Your task to perform on an android device: turn on location history Image 0: 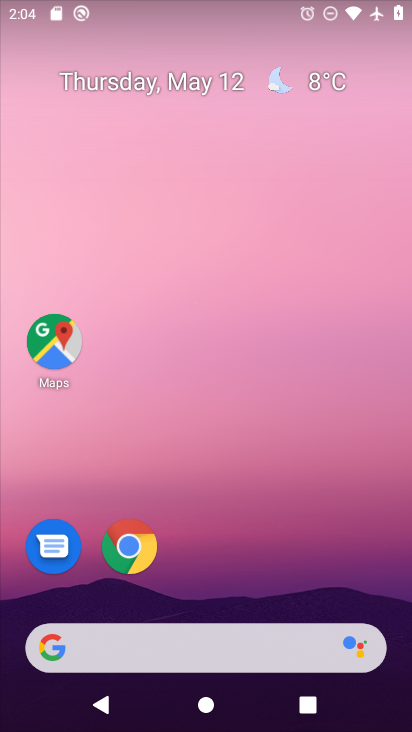
Step 0: drag from (147, 650) to (266, 92)
Your task to perform on an android device: turn on location history Image 1: 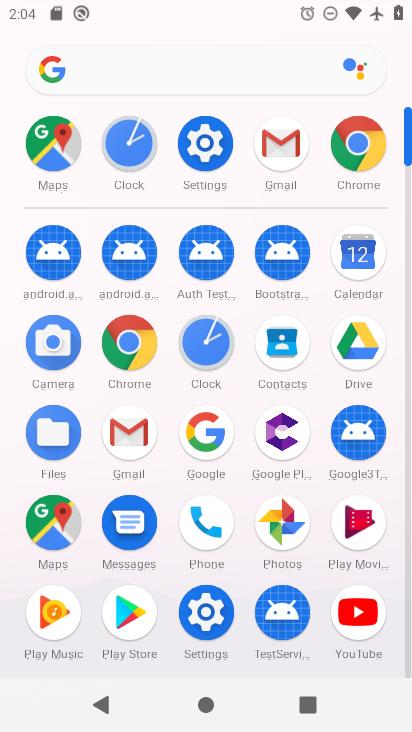
Step 1: click (60, 151)
Your task to perform on an android device: turn on location history Image 2: 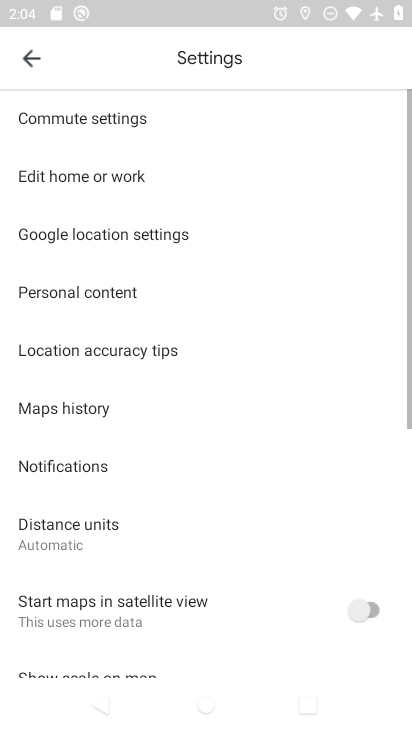
Step 2: click (31, 62)
Your task to perform on an android device: turn on location history Image 3: 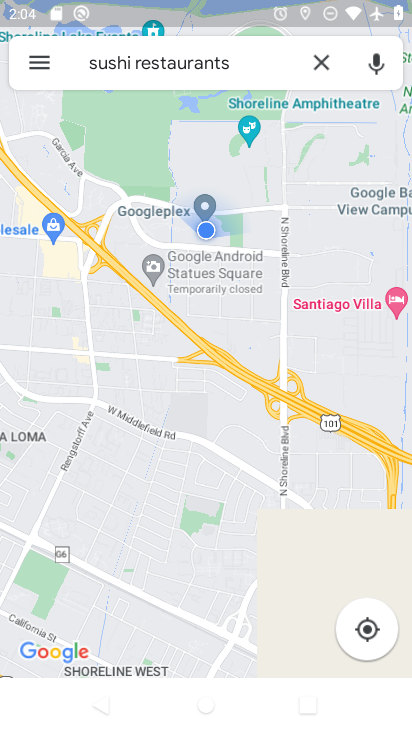
Step 3: click (31, 61)
Your task to perform on an android device: turn on location history Image 4: 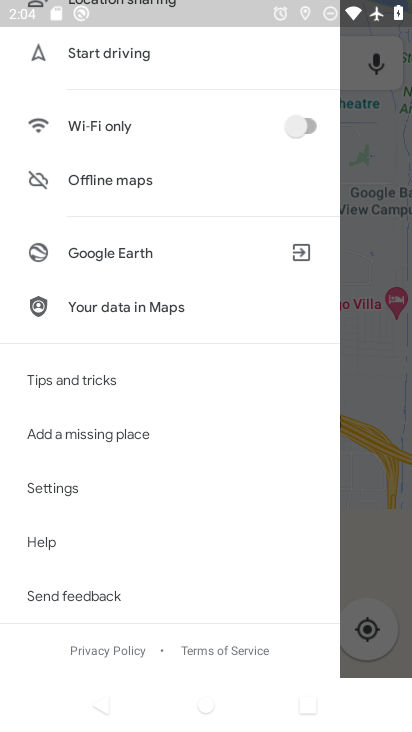
Step 4: drag from (218, 111) to (166, 567)
Your task to perform on an android device: turn on location history Image 5: 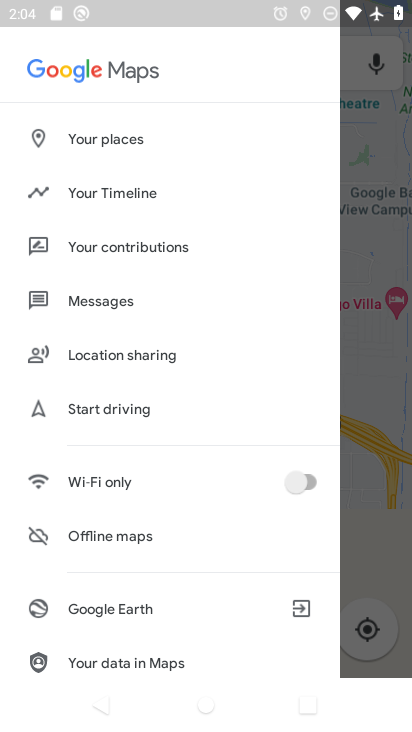
Step 5: click (108, 190)
Your task to perform on an android device: turn on location history Image 6: 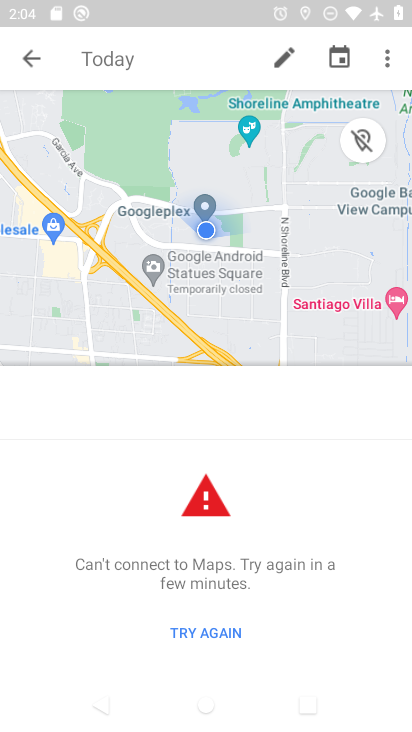
Step 6: click (389, 60)
Your task to perform on an android device: turn on location history Image 7: 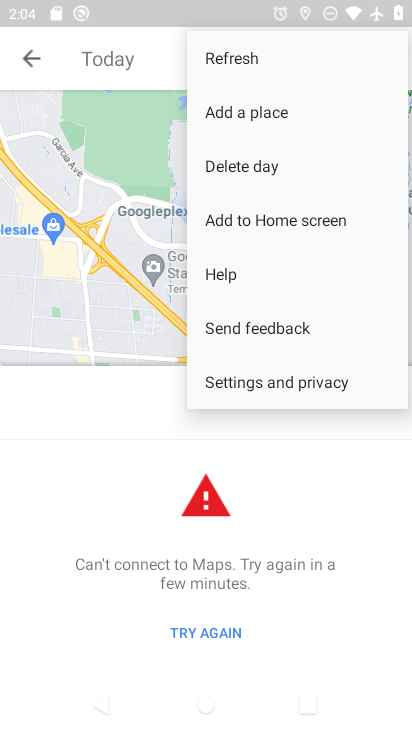
Step 7: click (297, 377)
Your task to perform on an android device: turn on location history Image 8: 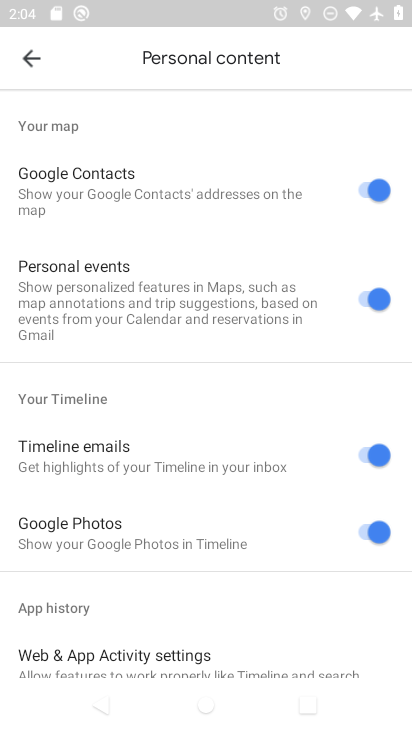
Step 8: drag from (174, 617) to (227, 395)
Your task to perform on an android device: turn on location history Image 9: 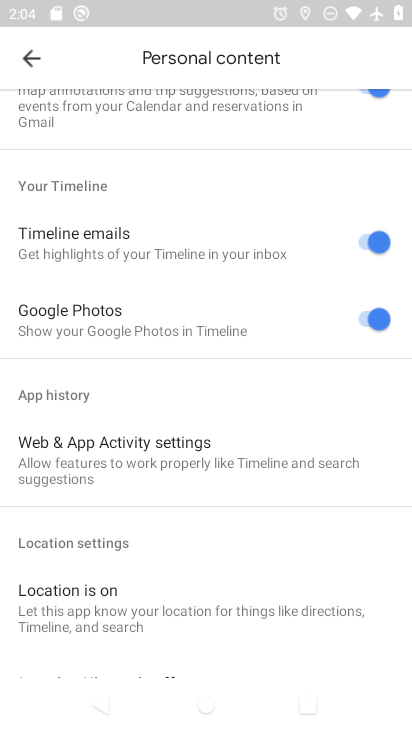
Step 9: drag from (209, 573) to (259, 418)
Your task to perform on an android device: turn on location history Image 10: 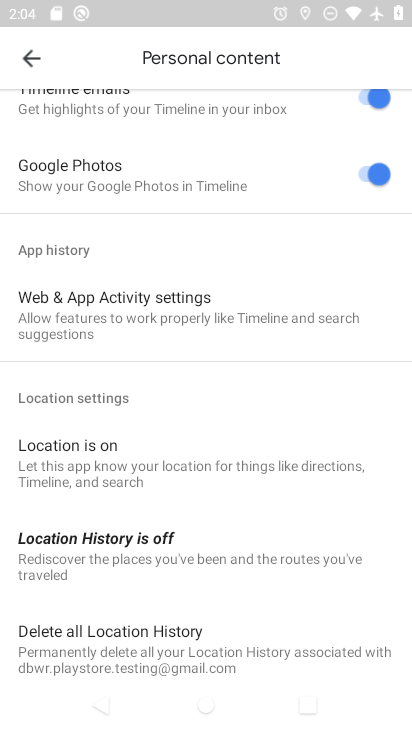
Step 10: click (135, 542)
Your task to perform on an android device: turn on location history Image 11: 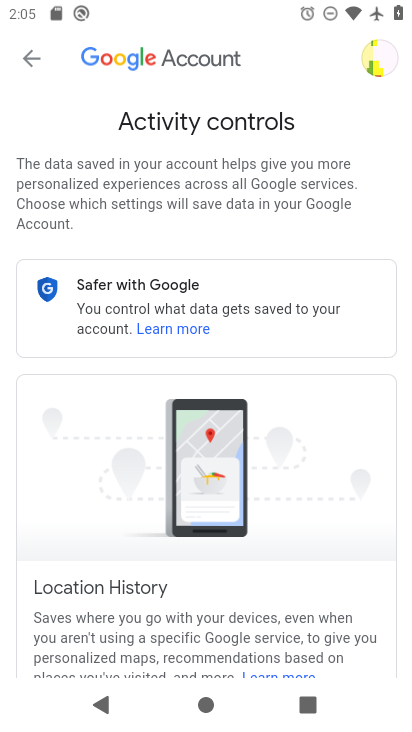
Step 11: task complete